Your task to perform on an android device: Go to sound settings Image 0: 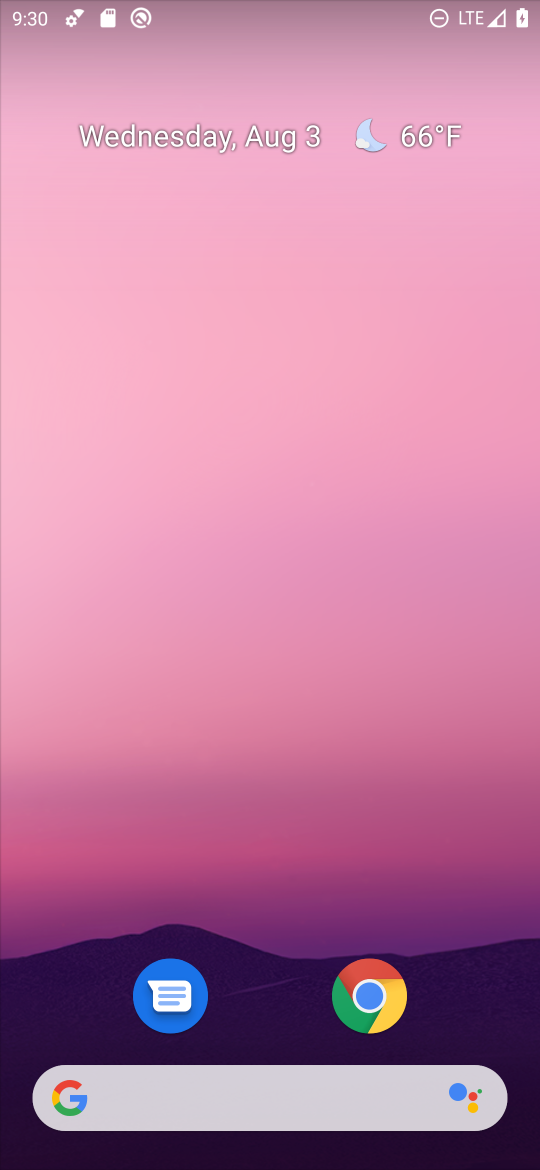
Step 0: drag from (323, 846) to (318, 56)
Your task to perform on an android device: Go to sound settings Image 1: 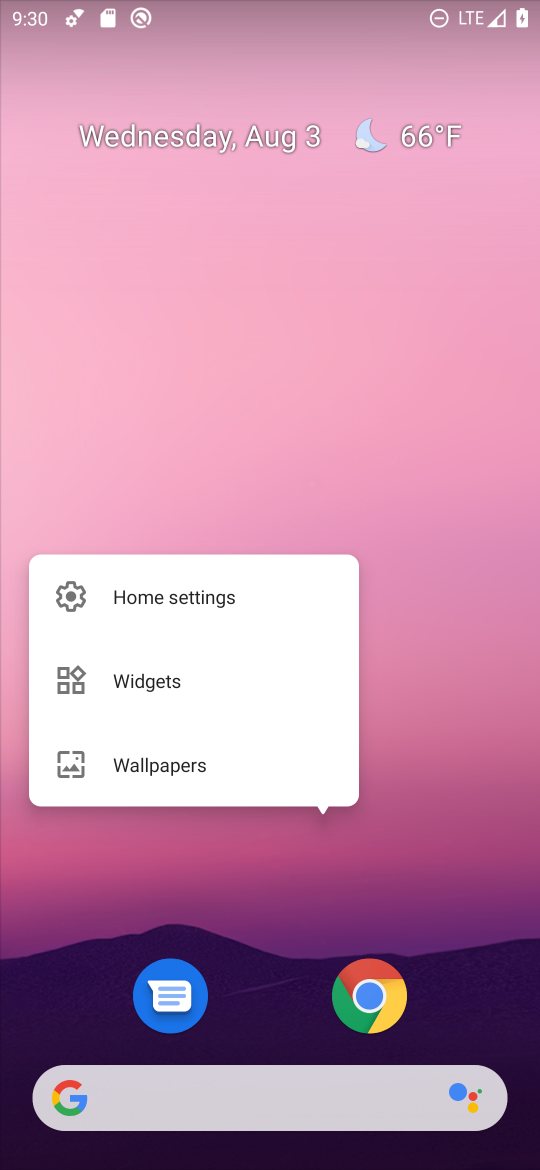
Step 1: click (443, 663)
Your task to perform on an android device: Go to sound settings Image 2: 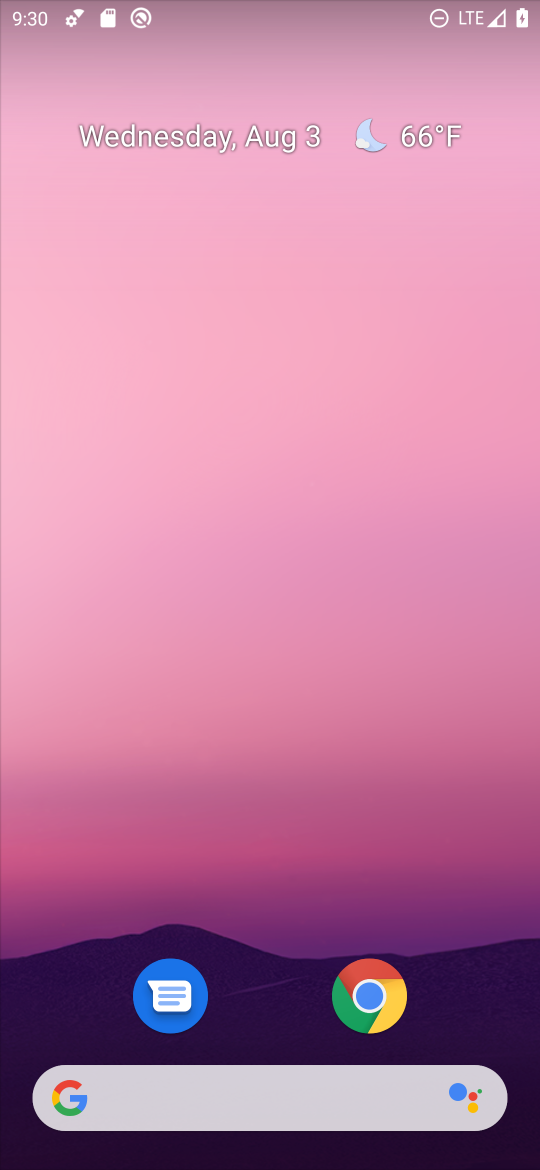
Step 2: drag from (355, 810) to (348, 0)
Your task to perform on an android device: Go to sound settings Image 3: 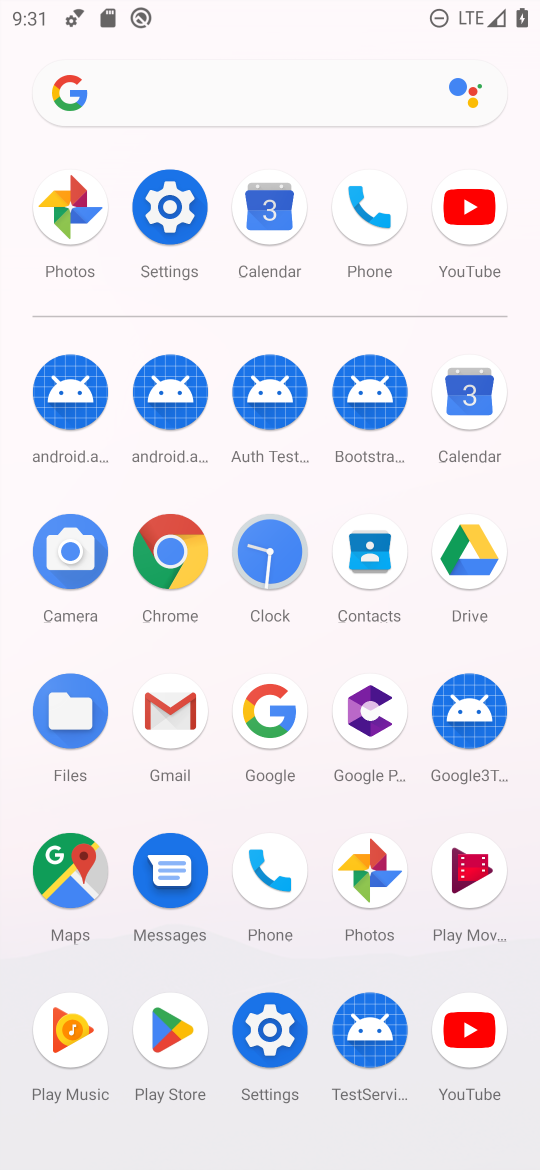
Step 3: click (177, 206)
Your task to perform on an android device: Go to sound settings Image 4: 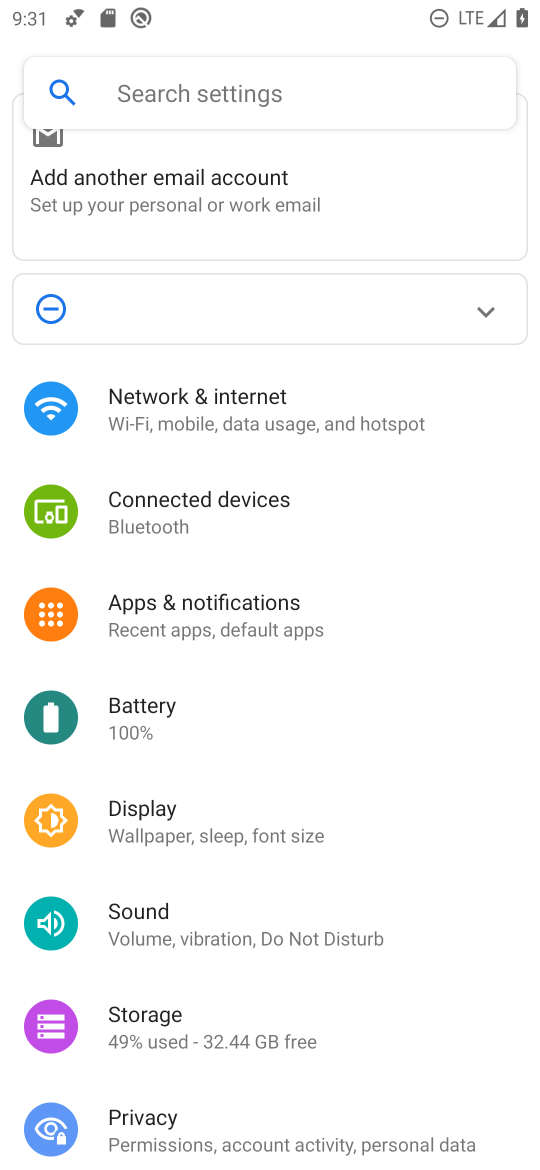
Step 4: click (168, 917)
Your task to perform on an android device: Go to sound settings Image 5: 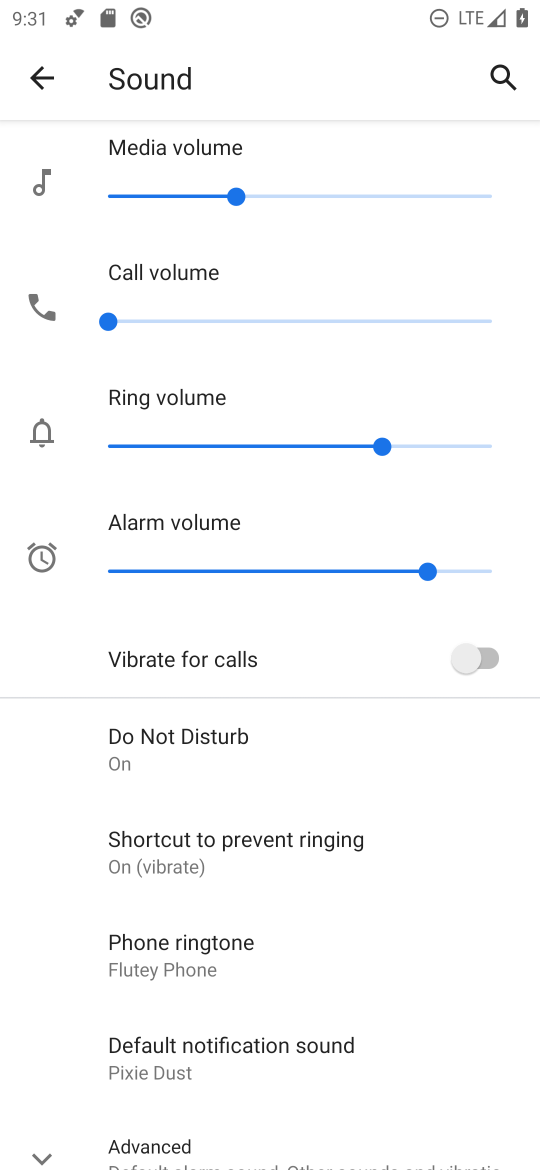
Step 5: task complete